Your task to perform on an android device: set an alarm Image 0: 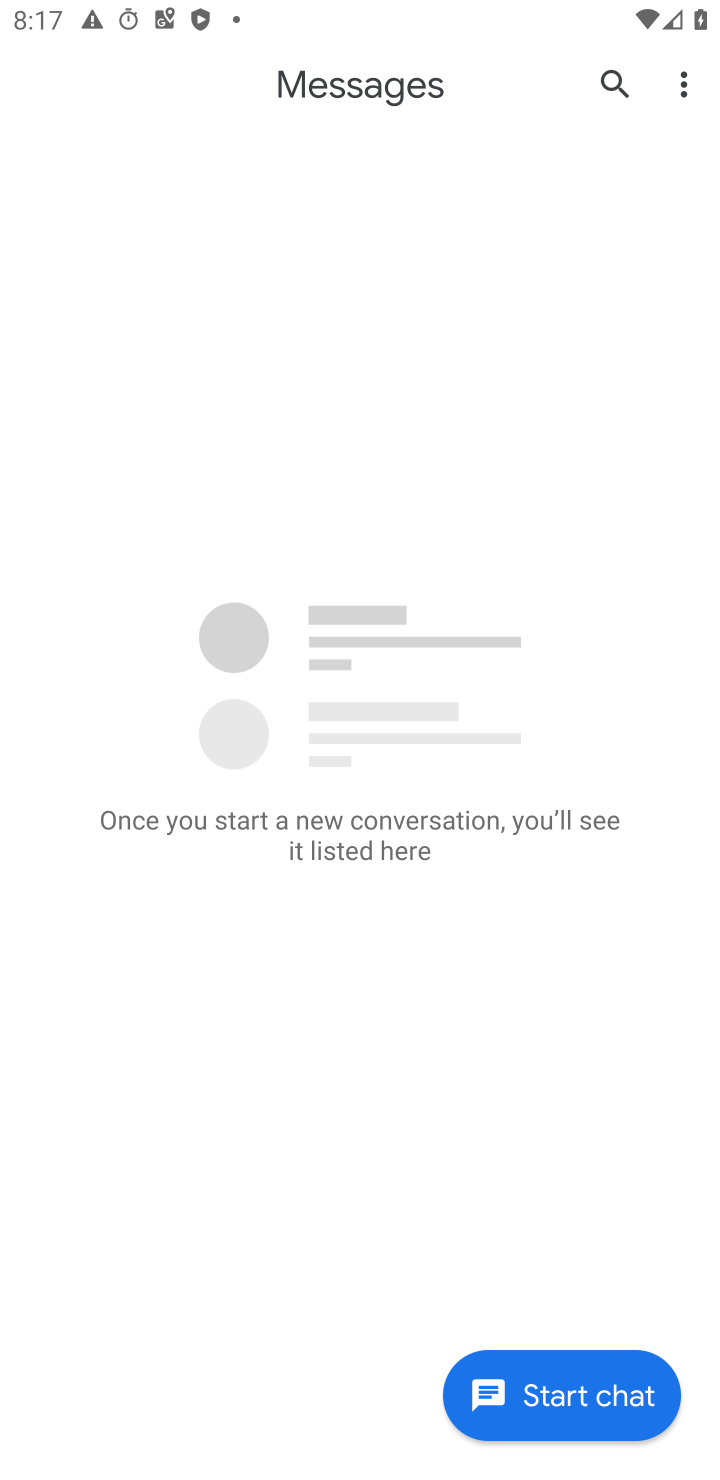
Step 0: press home button
Your task to perform on an android device: set an alarm Image 1: 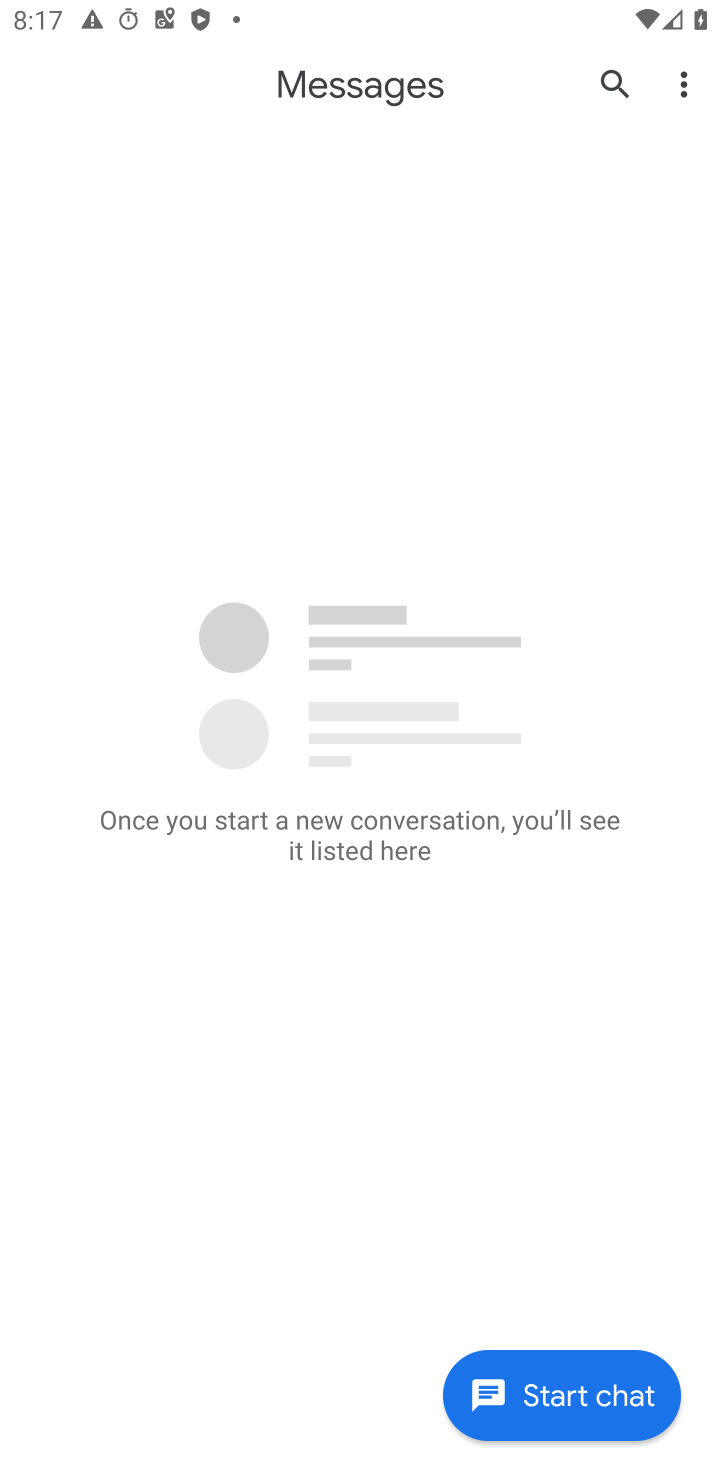
Step 1: press home button
Your task to perform on an android device: set an alarm Image 2: 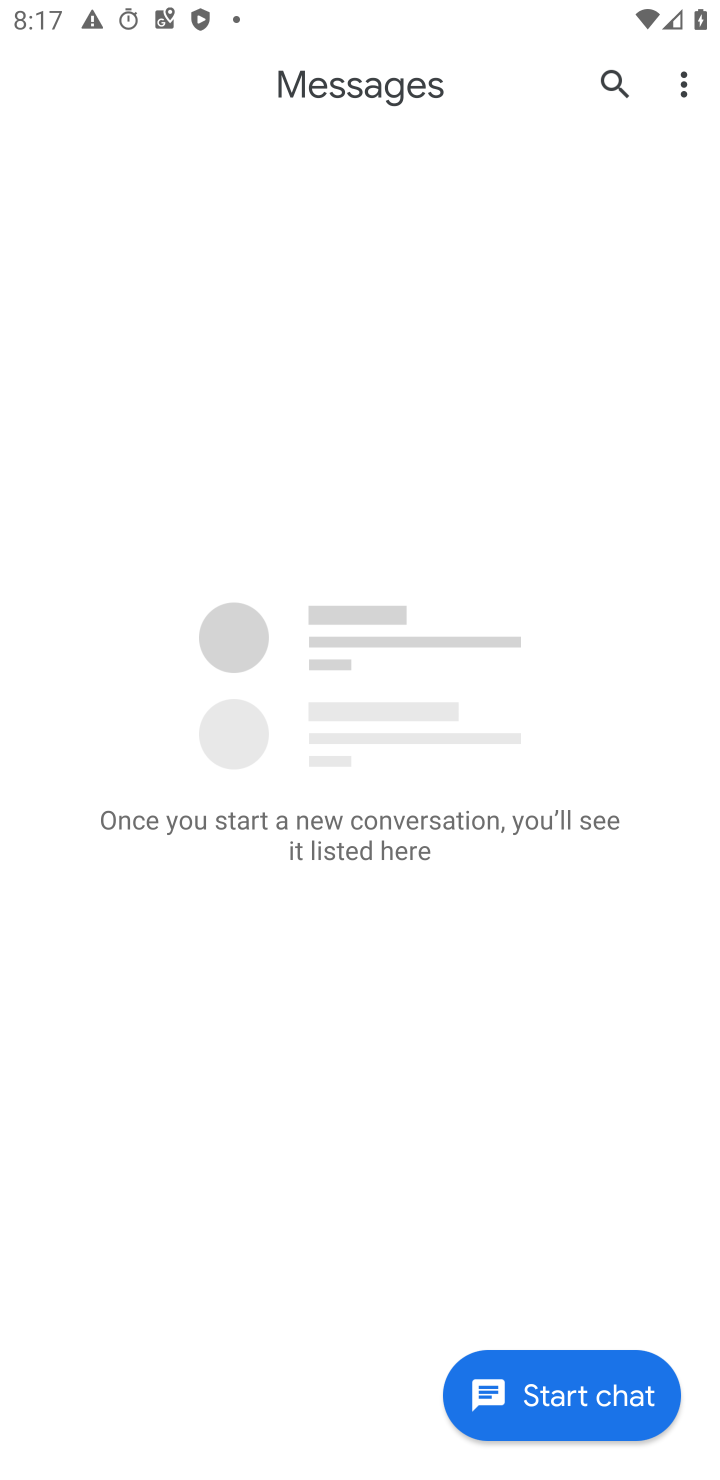
Step 2: click (558, 8)
Your task to perform on an android device: set an alarm Image 3: 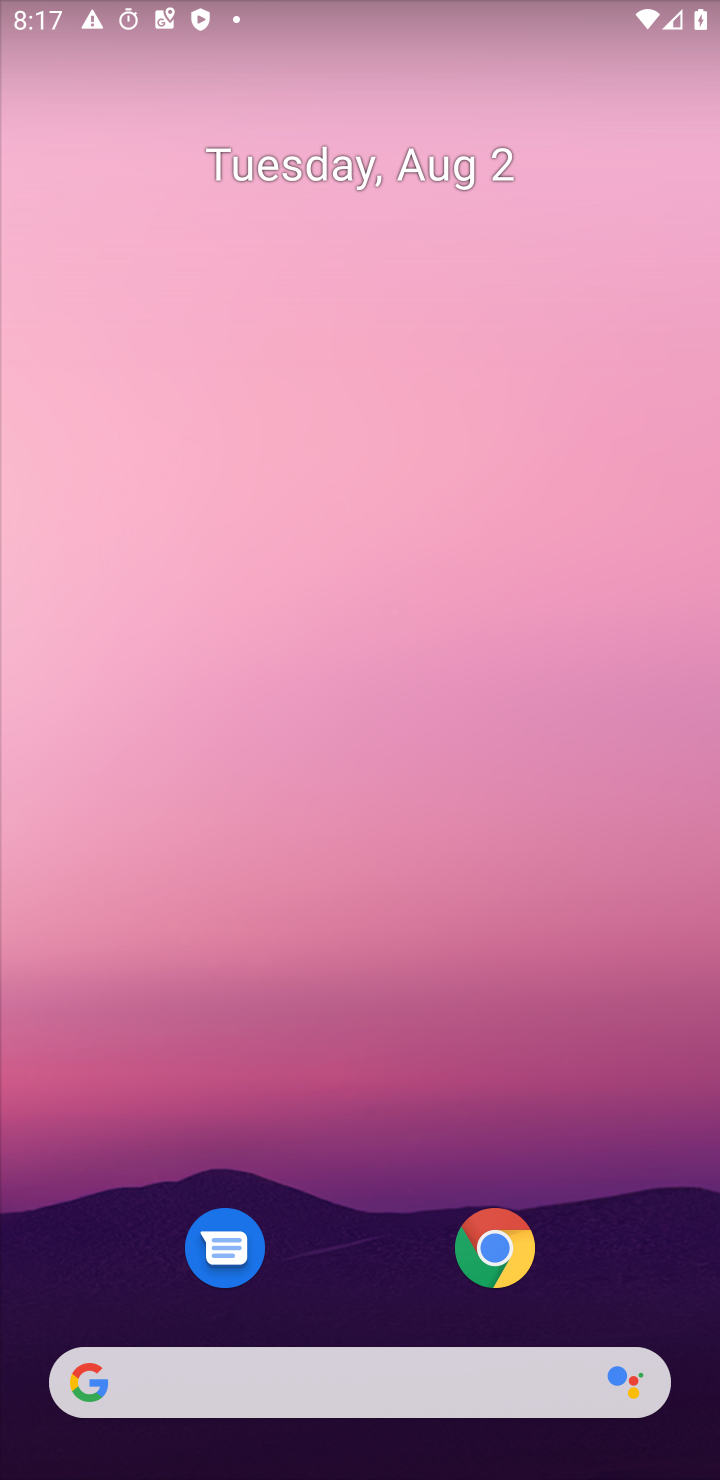
Step 3: drag from (334, 1148) to (354, 240)
Your task to perform on an android device: set an alarm Image 4: 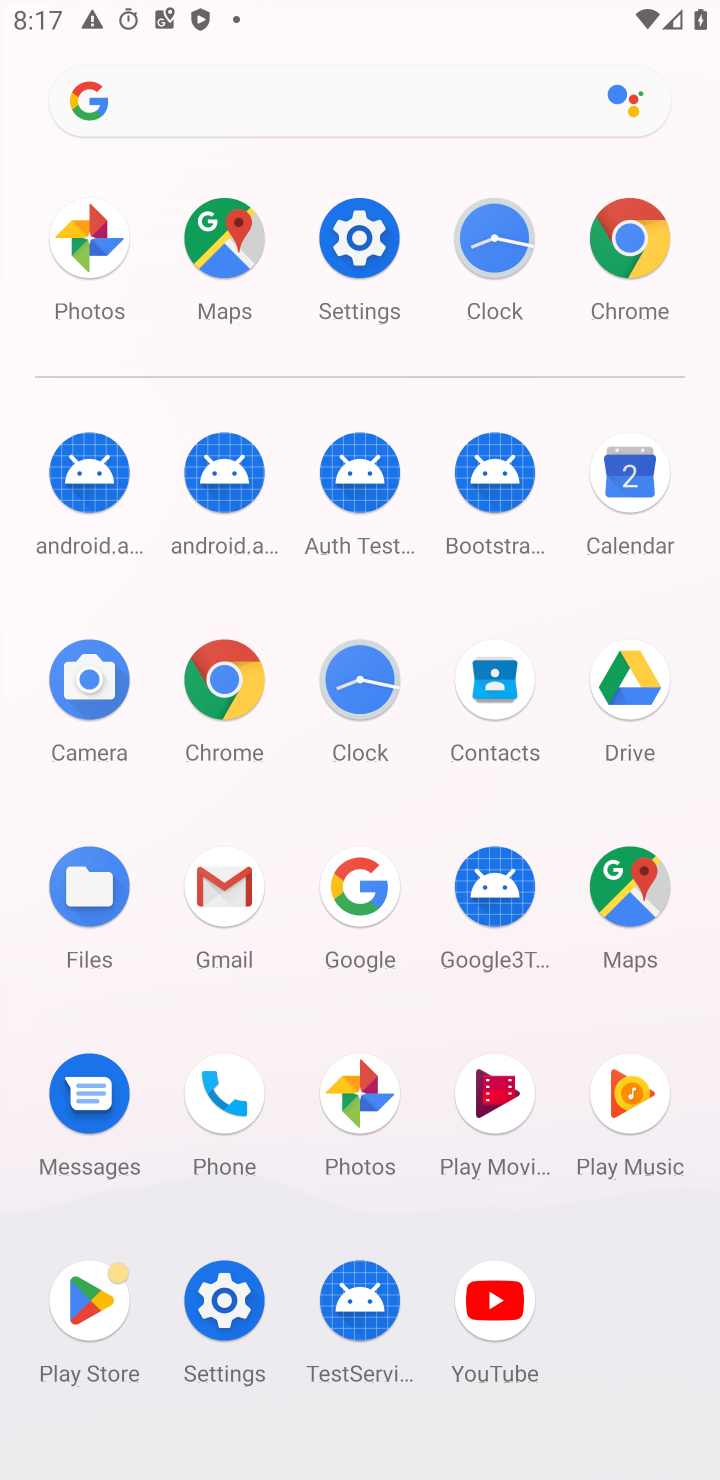
Step 4: click (352, 679)
Your task to perform on an android device: set an alarm Image 5: 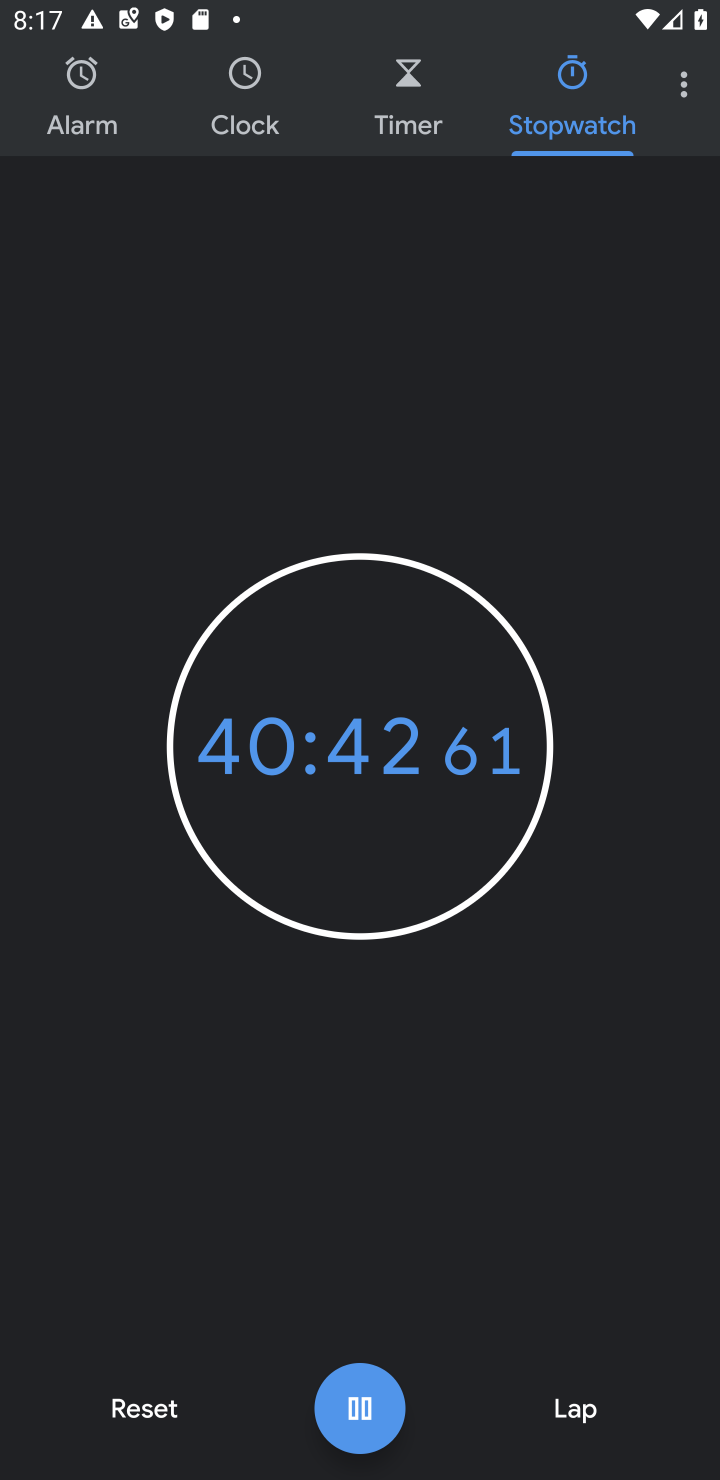
Step 5: click (88, 99)
Your task to perform on an android device: set an alarm Image 6: 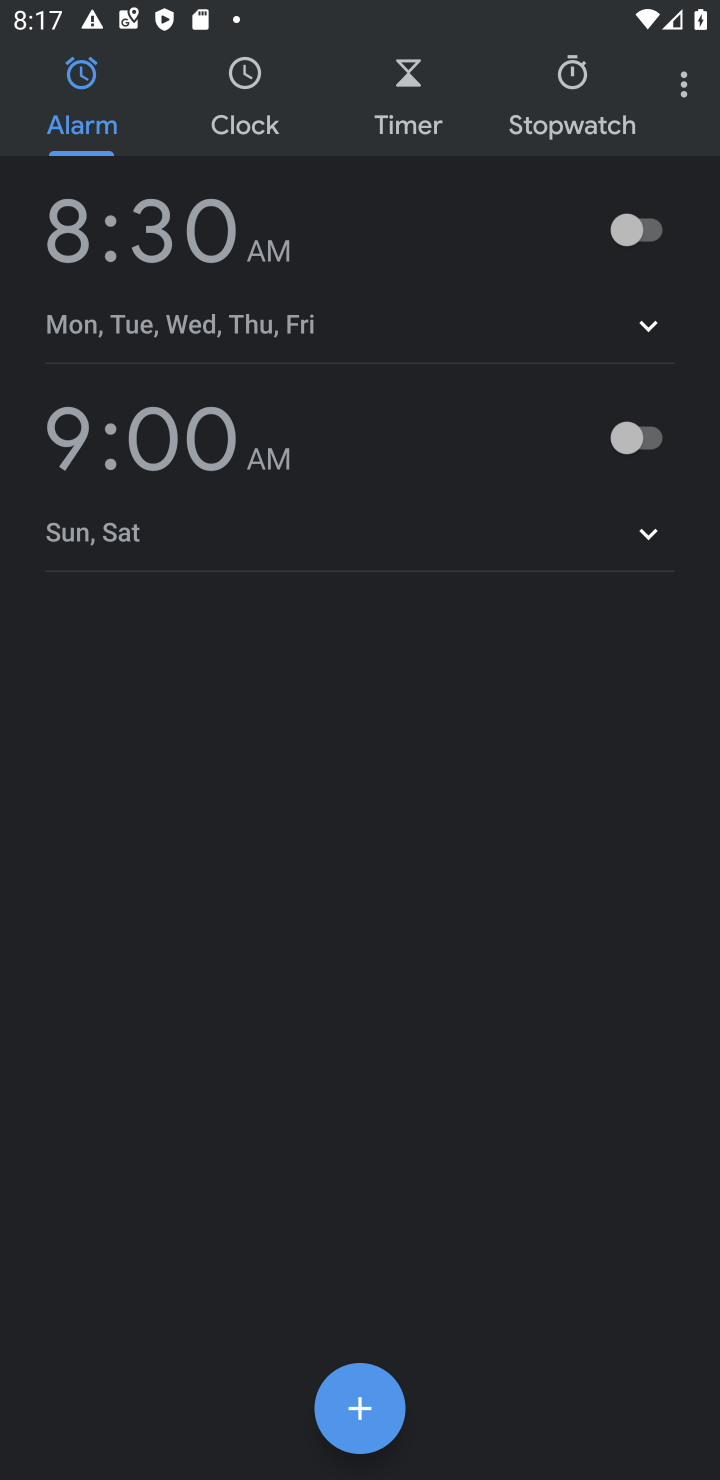
Step 6: click (635, 209)
Your task to perform on an android device: set an alarm Image 7: 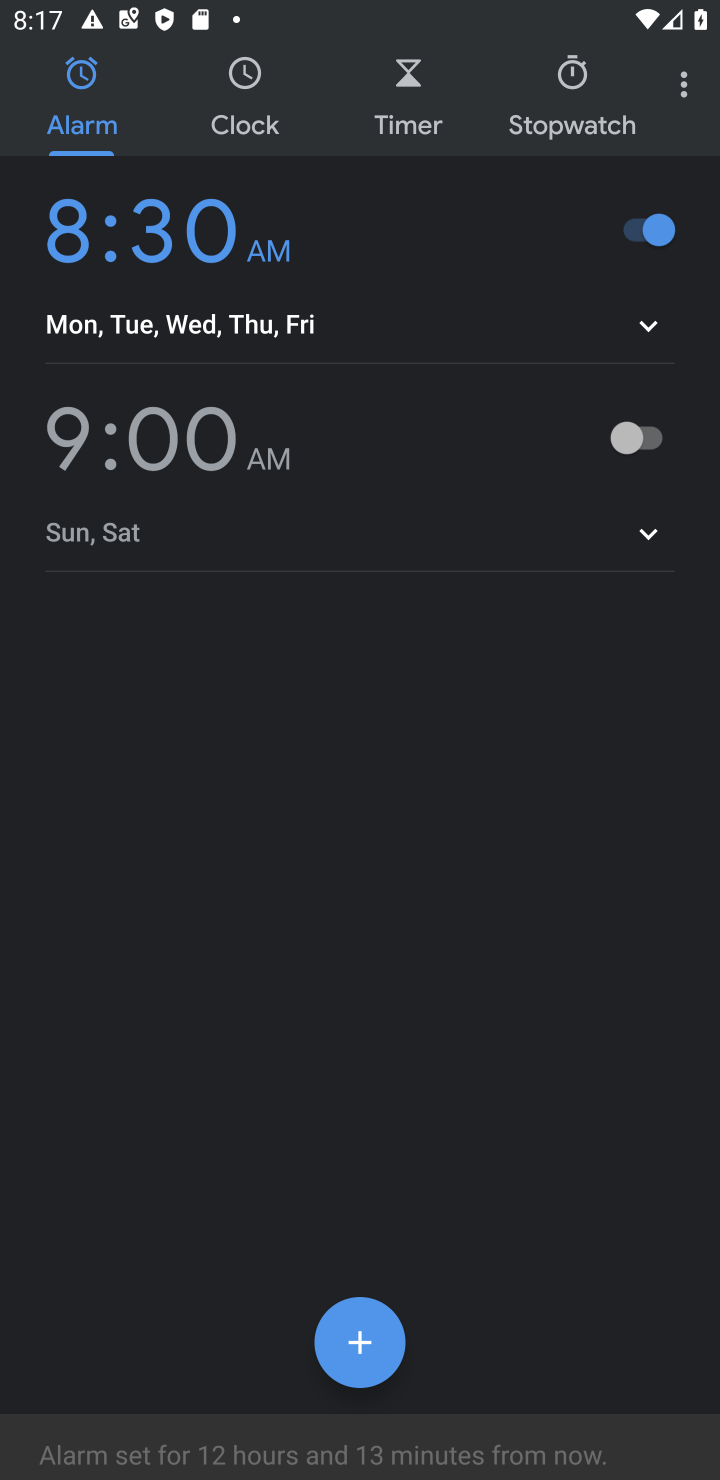
Step 7: task complete